Your task to perform on an android device: visit the assistant section in the google photos Image 0: 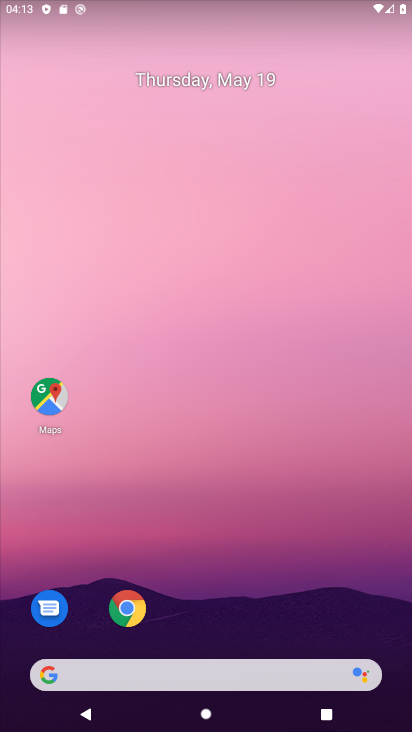
Step 0: drag from (260, 592) to (237, 154)
Your task to perform on an android device: visit the assistant section in the google photos Image 1: 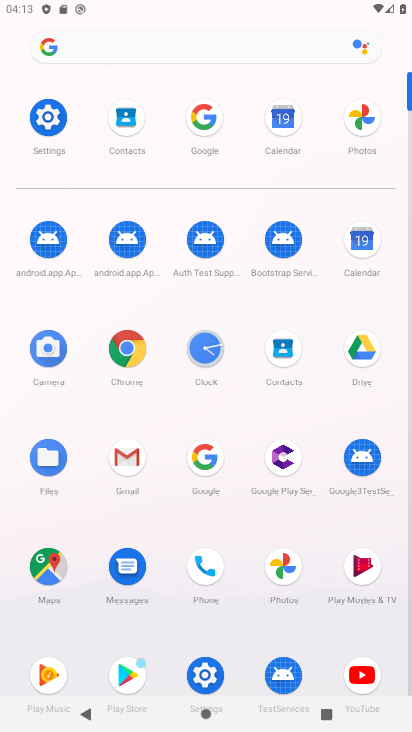
Step 1: drag from (238, 650) to (219, 431)
Your task to perform on an android device: visit the assistant section in the google photos Image 2: 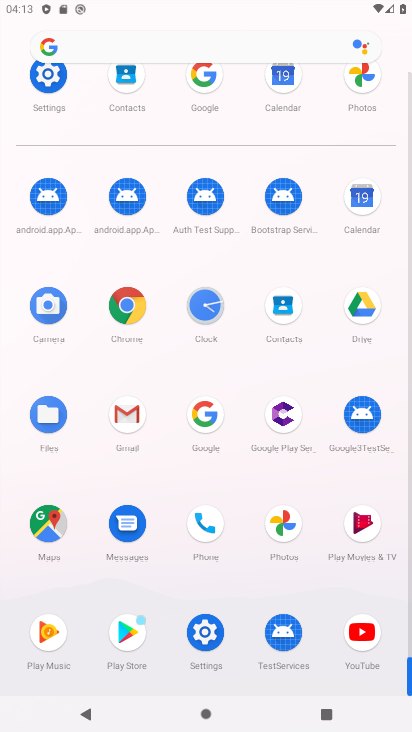
Step 2: drag from (244, 171) to (267, 277)
Your task to perform on an android device: visit the assistant section in the google photos Image 3: 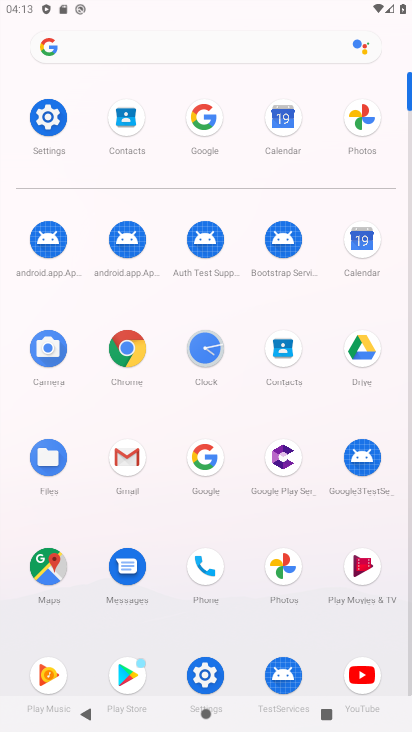
Step 3: drag from (244, 404) to (240, 251)
Your task to perform on an android device: visit the assistant section in the google photos Image 4: 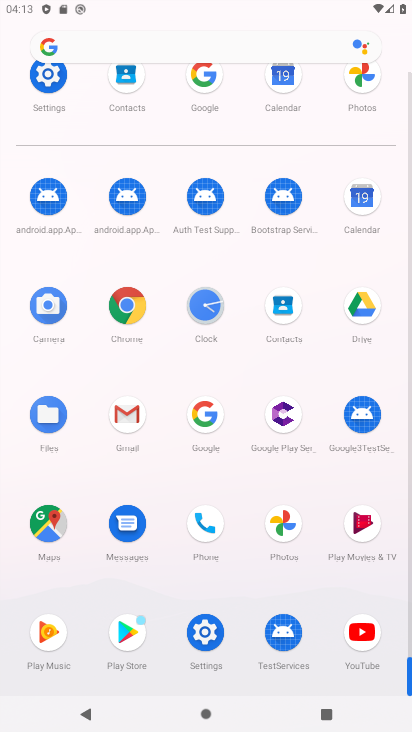
Step 4: click (283, 522)
Your task to perform on an android device: visit the assistant section in the google photos Image 5: 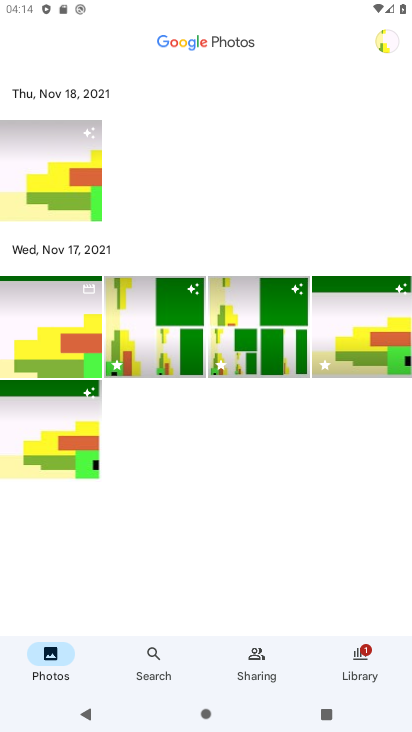
Step 5: click (259, 678)
Your task to perform on an android device: visit the assistant section in the google photos Image 6: 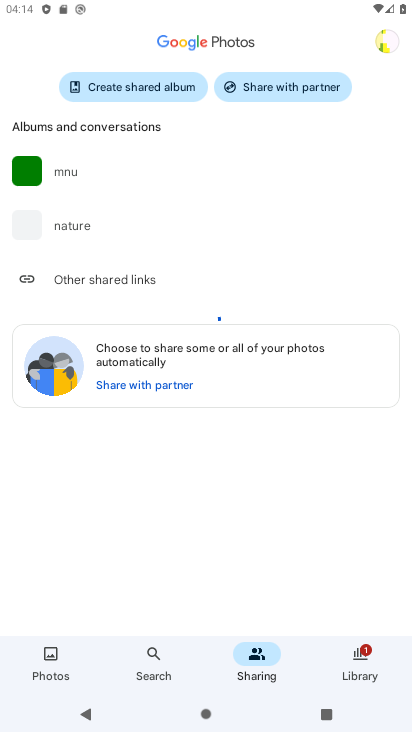
Step 6: click (150, 663)
Your task to perform on an android device: visit the assistant section in the google photos Image 7: 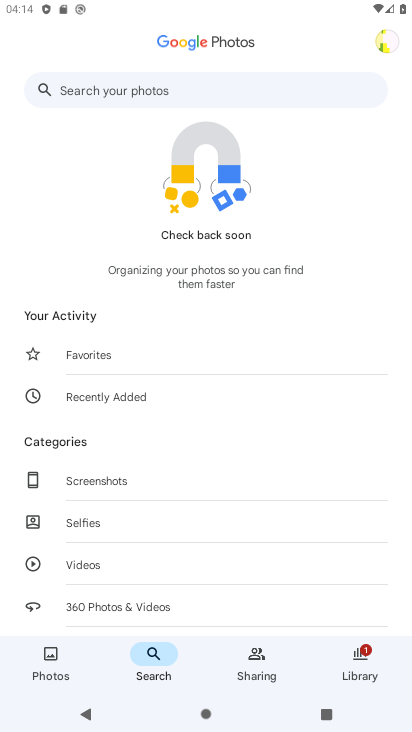
Step 7: drag from (218, 560) to (266, 434)
Your task to perform on an android device: visit the assistant section in the google photos Image 8: 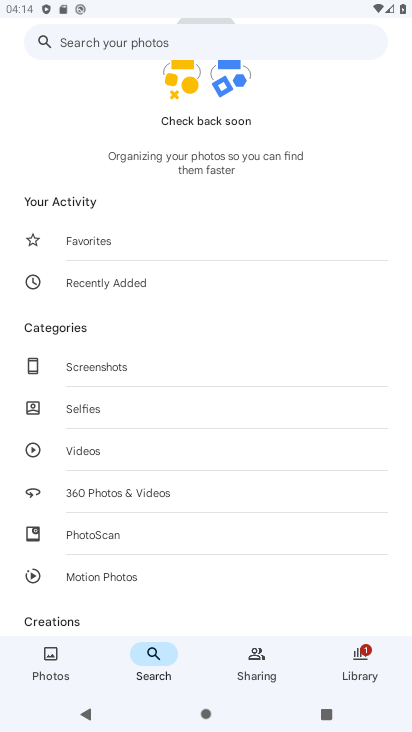
Step 8: click (67, 667)
Your task to perform on an android device: visit the assistant section in the google photos Image 9: 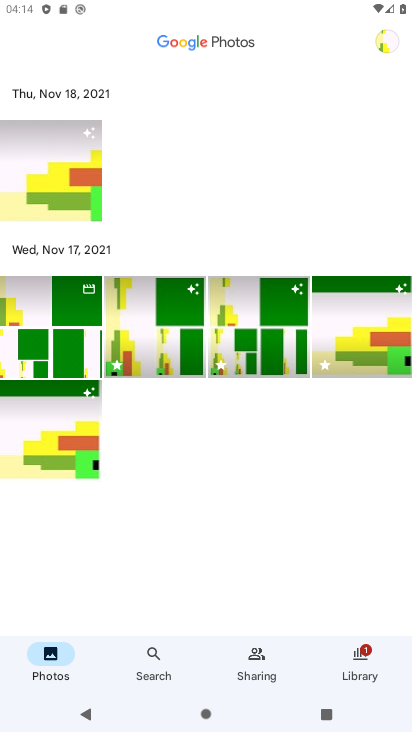
Step 9: task complete